Your task to perform on an android device: turn pop-ups off in chrome Image 0: 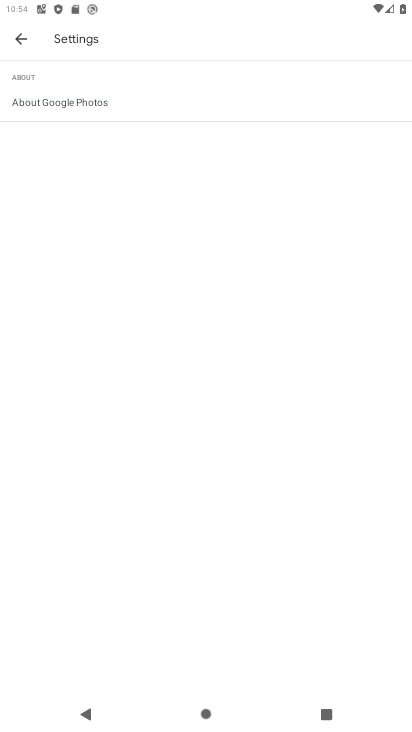
Step 0: press back button
Your task to perform on an android device: turn pop-ups off in chrome Image 1: 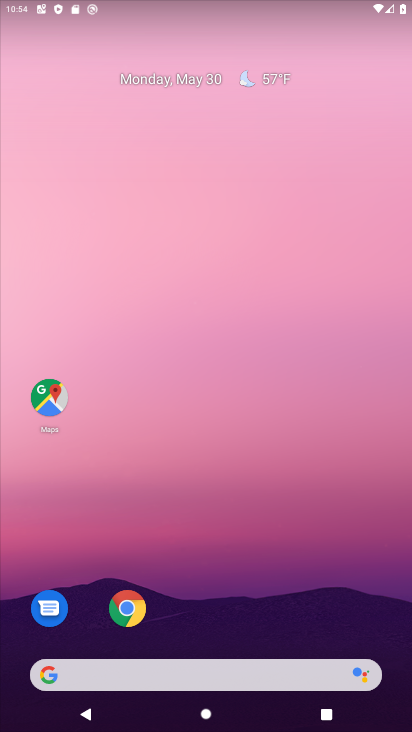
Step 1: drag from (255, 569) to (235, 17)
Your task to perform on an android device: turn pop-ups off in chrome Image 2: 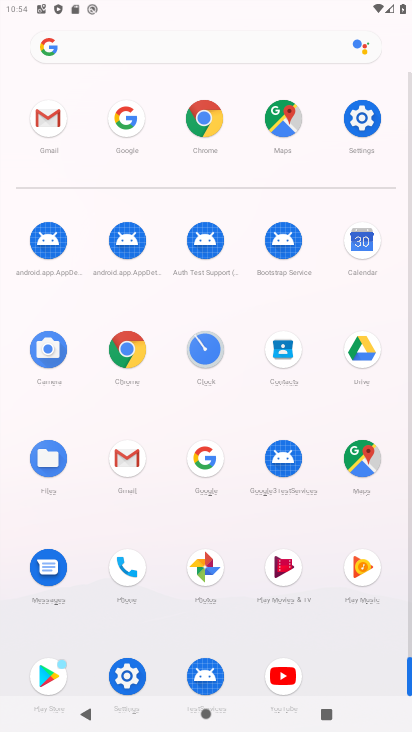
Step 2: click (126, 345)
Your task to perform on an android device: turn pop-ups off in chrome Image 3: 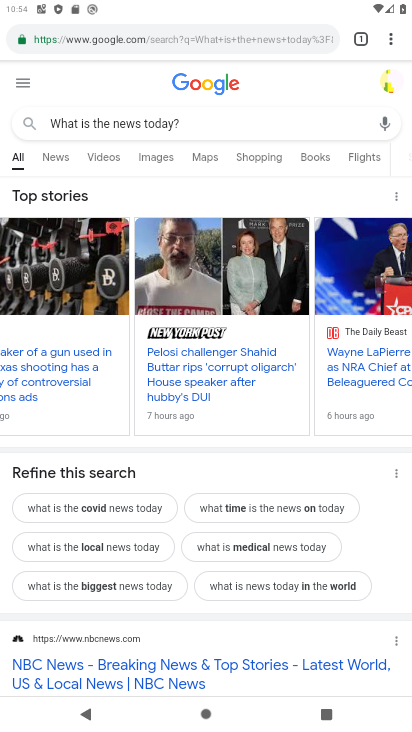
Step 3: drag from (390, 39) to (253, 479)
Your task to perform on an android device: turn pop-ups off in chrome Image 4: 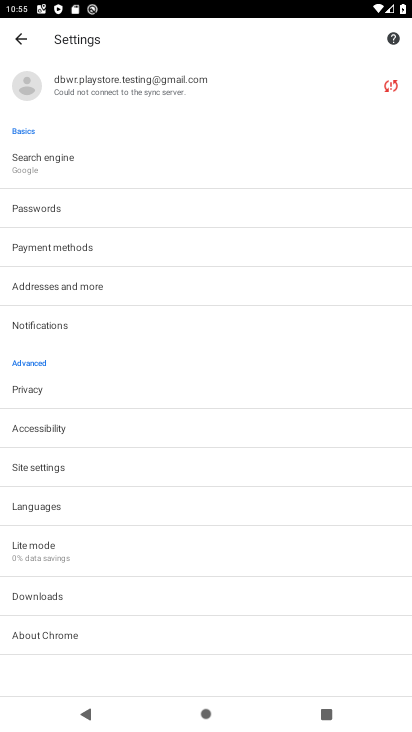
Step 4: click (71, 467)
Your task to perform on an android device: turn pop-ups off in chrome Image 5: 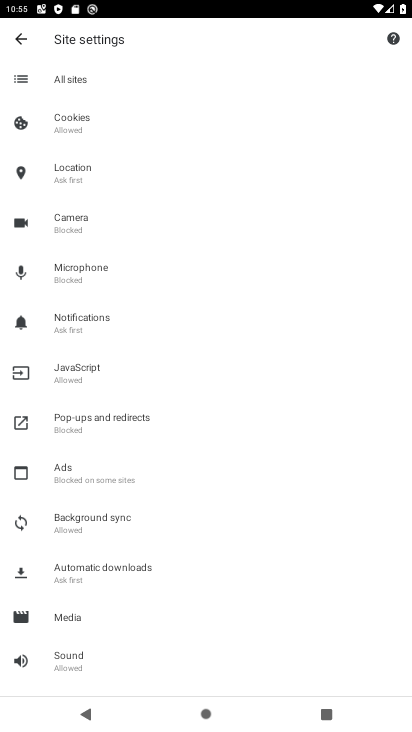
Step 5: task complete